Your task to perform on an android device: Is it going to rain tomorrow? Image 0: 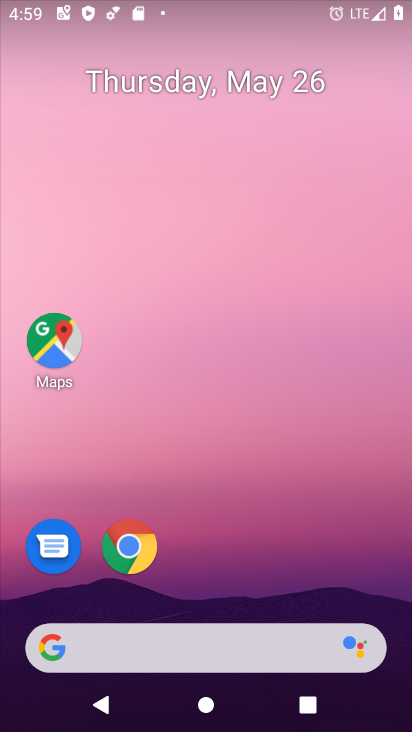
Step 0: click (175, 624)
Your task to perform on an android device: Is it going to rain tomorrow? Image 1: 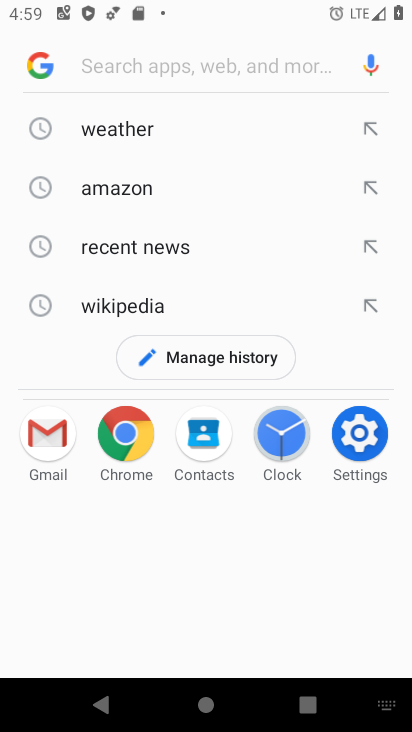
Step 1: click (80, 131)
Your task to perform on an android device: Is it going to rain tomorrow? Image 2: 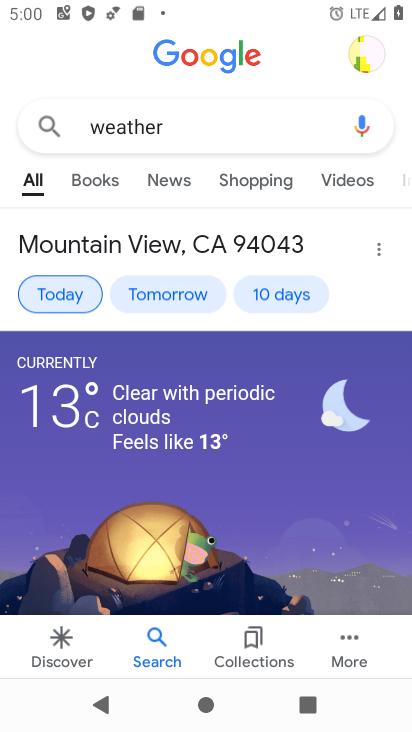
Step 2: click (160, 290)
Your task to perform on an android device: Is it going to rain tomorrow? Image 3: 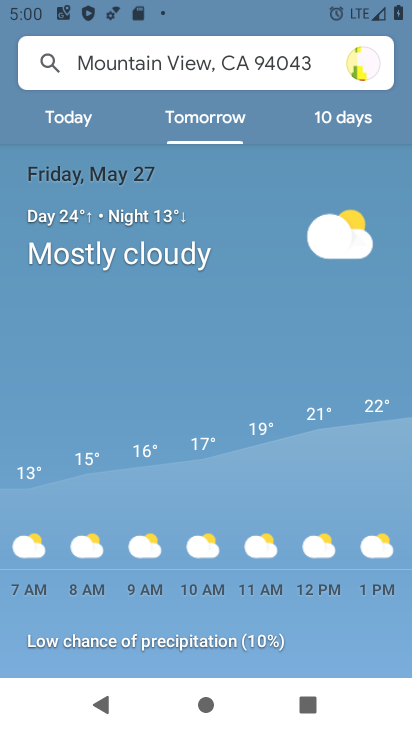
Step 3: task complete